Your task to perform on an android device: When is my next meeting? Image 0: 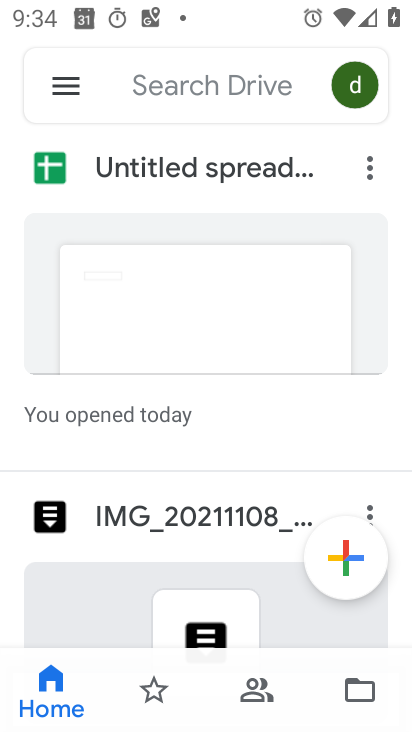
Step 0: press back button
Your task to perform on an android device: When is my next meeting? Image 1: 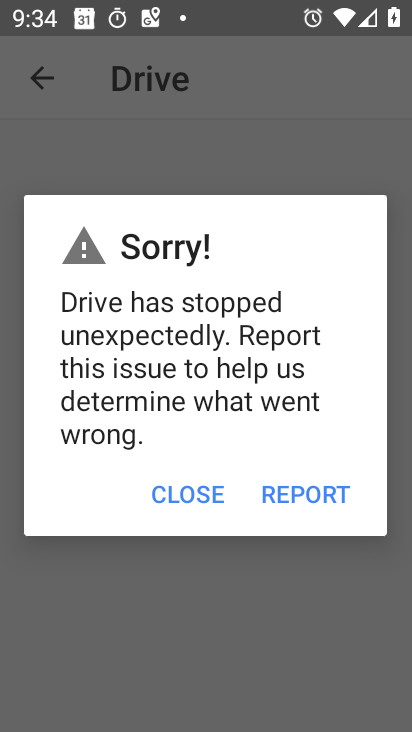
Step 1: press back button
Your task to perform on an android device: When is my next meeting? Image 2: 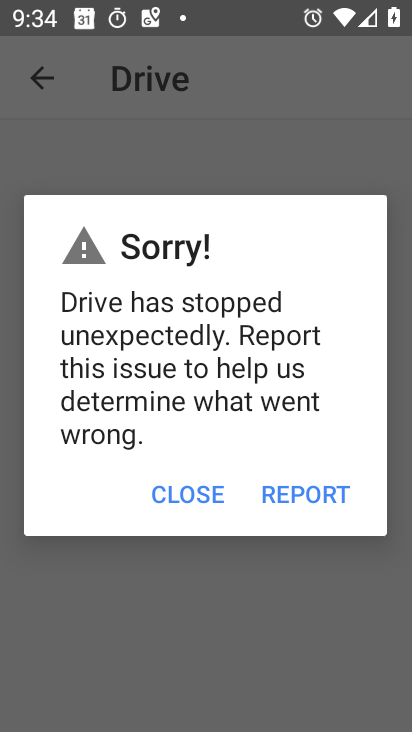
Step 2: press home button
Your task to perform on an android device: When is my next meeting? Image 3: 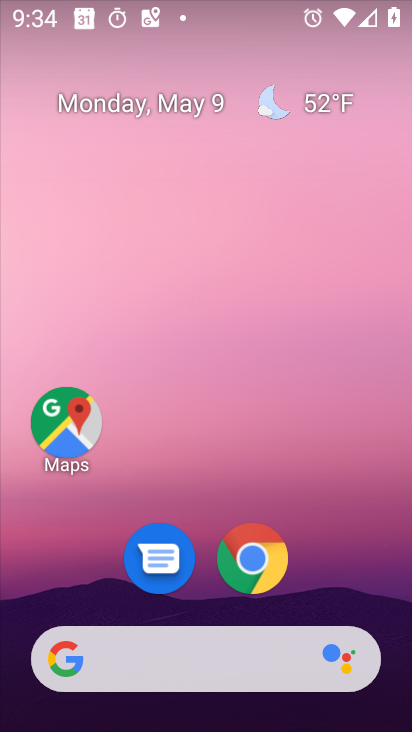
Step 3: drag from (199, 552) to (290, 4)
Your task to perform on an android device: When is my next meeting? Image 4: 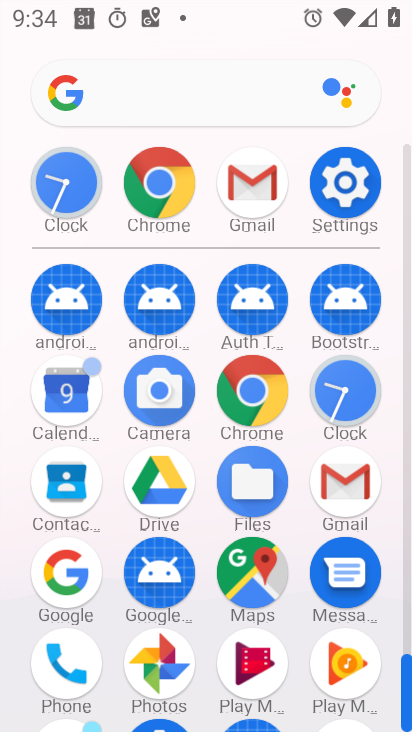
Step 4: click (62, 382)
Your task to perform on an android device: When is my next meeting? Image 5: 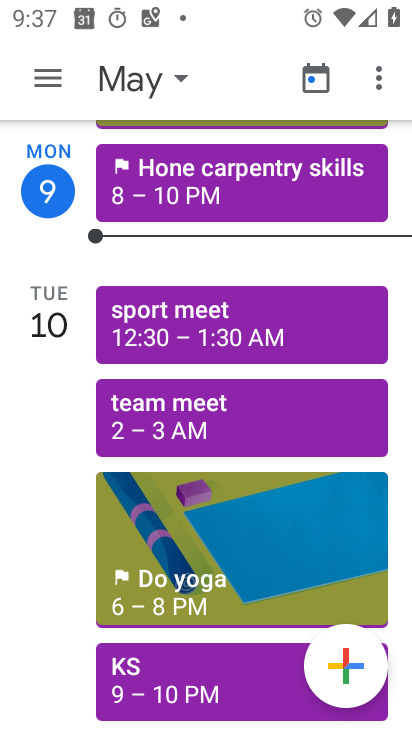
Step 5: click (195, 401)
Your task to perform on an android device: When is my next meeting? Image 6: 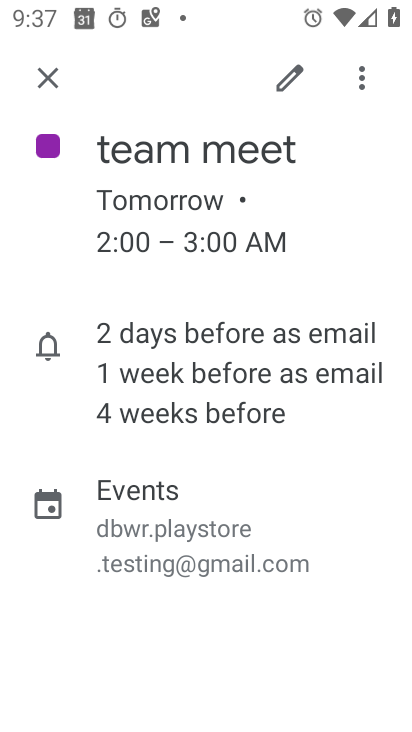
Step 6: task complete